Your task to perform on an android device: Go to Maps Image 0: 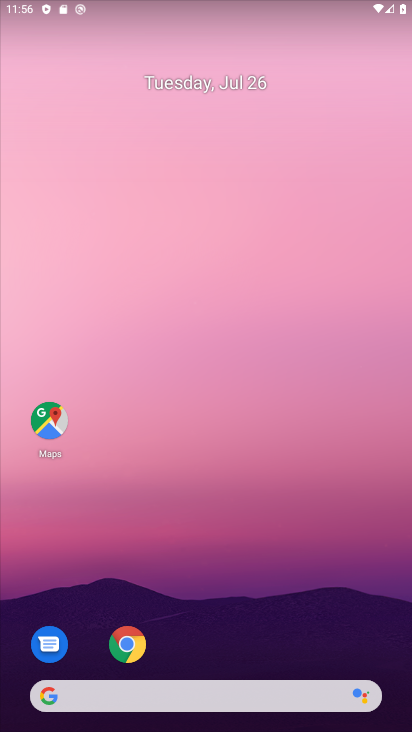
Step 0: click (229, 276)
Your task to perform on an android device: Go to Maps Image 1: 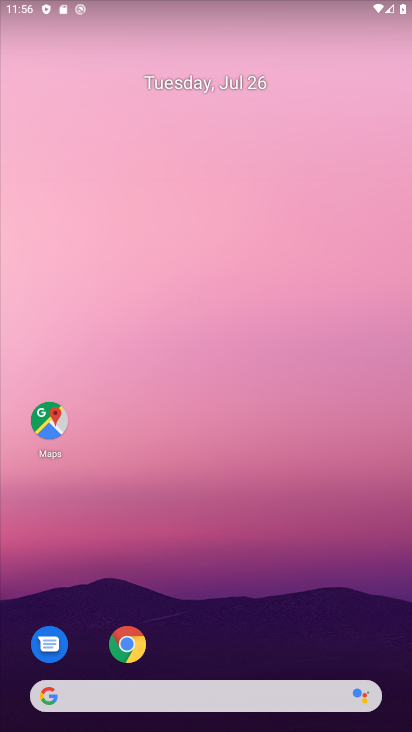
Step 1: drag from (239, 539) to (260, 284)
Your task to perform on an android device: Go to Maps Image 2: 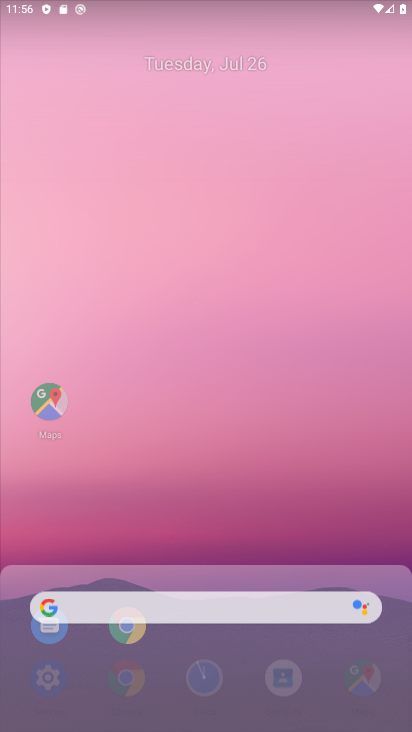
Step 2: drag from (124, 443) to (148, 99)
Your task to perform on an android device: Go to Maps Image 3: 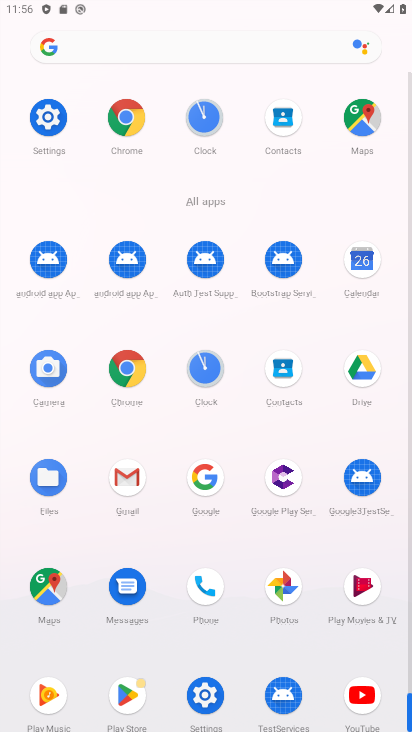
Step 3: click (163, 78)
Your task to perform on an android device: Go to Maps Image 4: 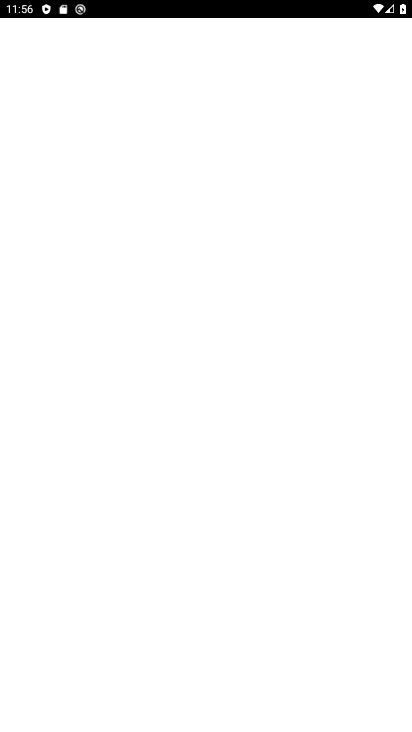
Step 4: click (47, 587)
Your task to perform on an android device: Go to Maps Image 5: 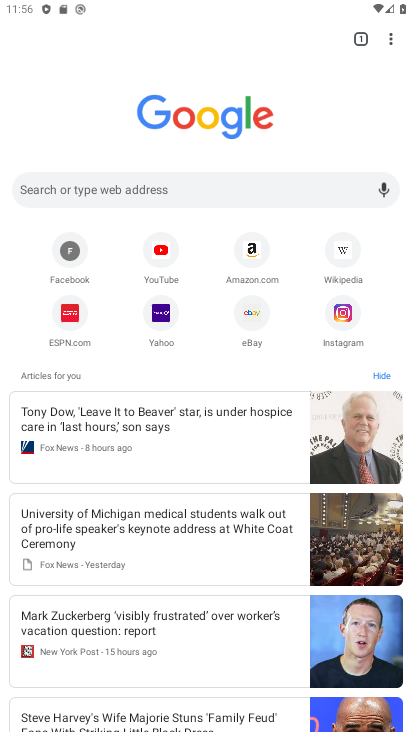
Step 5: press back button
Your task to perform on an android device: Go to Maps Image 6: 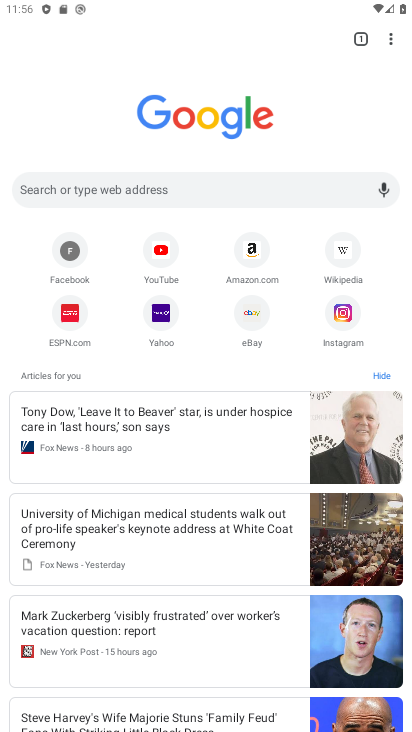
Step 6: press back button
Your task to perform on an android device: Go to Maps Image 7: 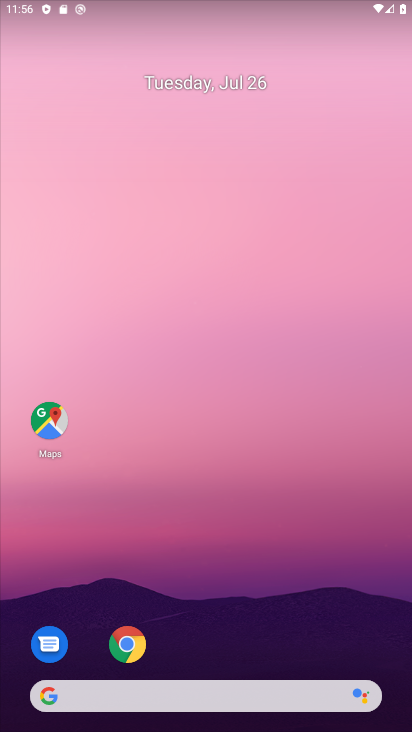
Step 7: drag from (236, 512) to (190, 49)
Your task to perform on an android device: Go to Maps Image 8: 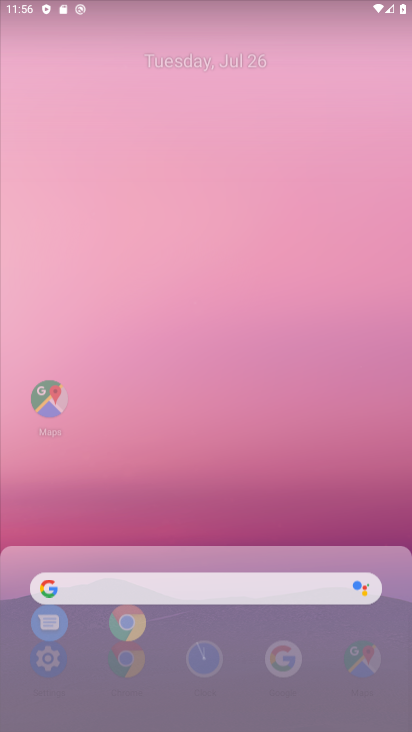
Step 8: drag from (193, 369) to (197, 127)
Your task to perform on an android device: Go to Maps Image 9: 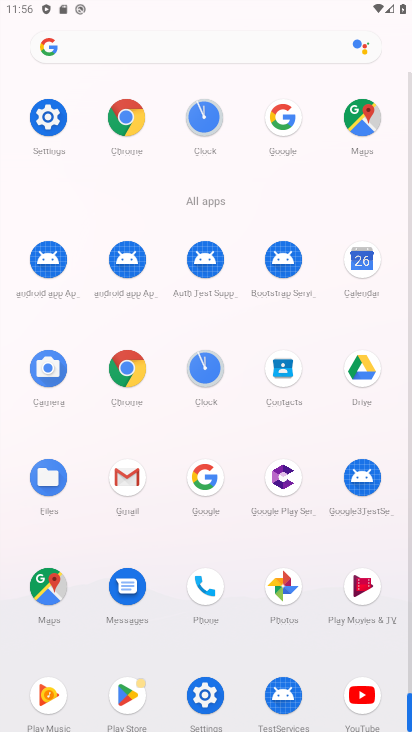
Step 9: click (69, 608)
Your task to perform on an android device: Go to Maps Image 10: 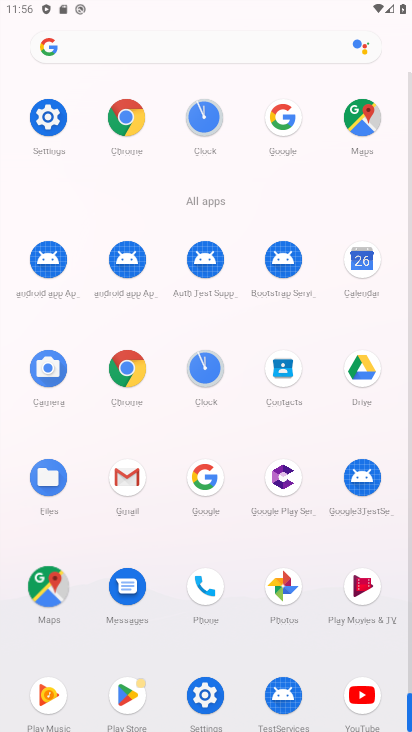
Step 10: click (65, 604)
Your task to perform on an android device: Go to Maps Image 11: 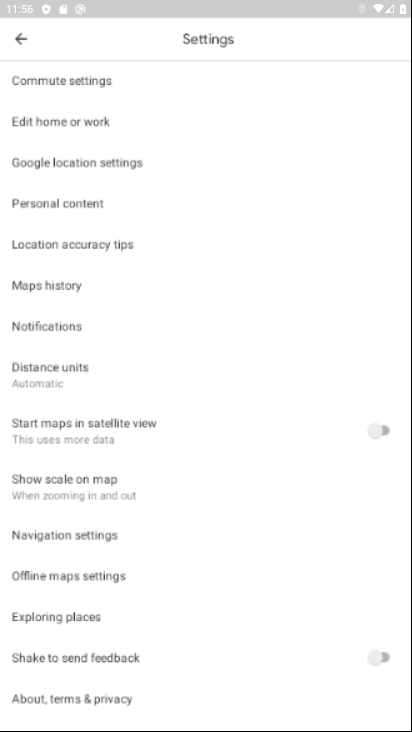
Step 11: click (56, 595)
Your task to perform on an android device: Go to Maps Image 12: 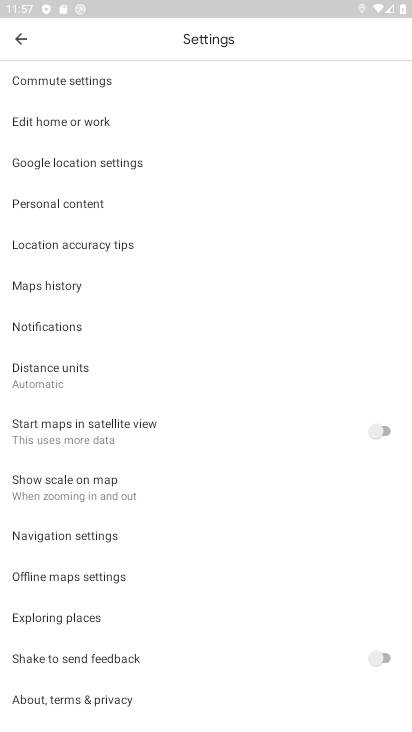
Step 12: click (10, 38)
Your task to perform on an android device: Go to Maps Image 13: 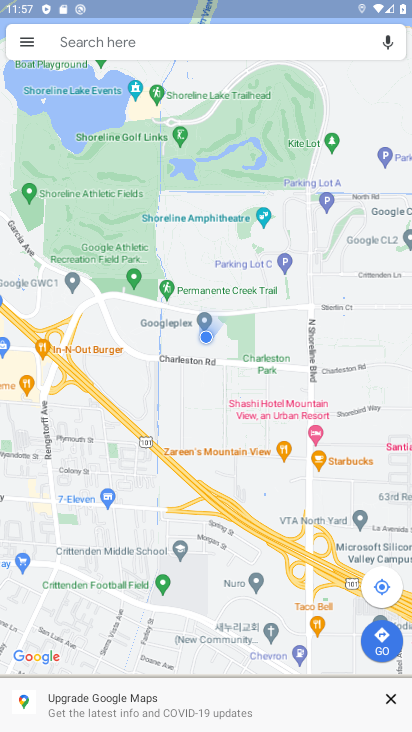
Step 13: task complete